Your task to perform on an android device: Show me recent news Image 0: 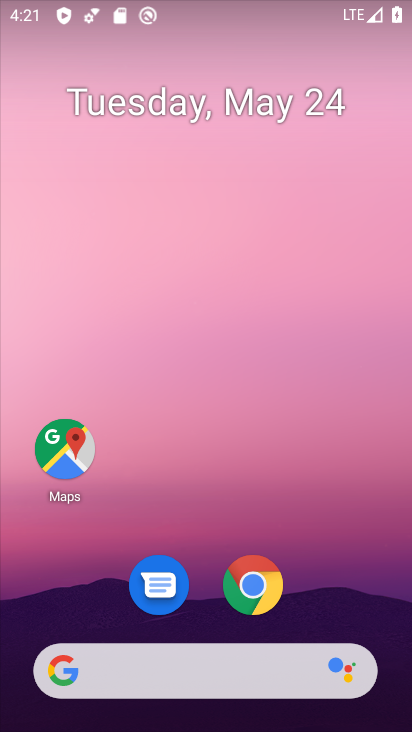
Step 0: click (226, 674)
Your task to perform on an android device: Show me recent news Image 1: 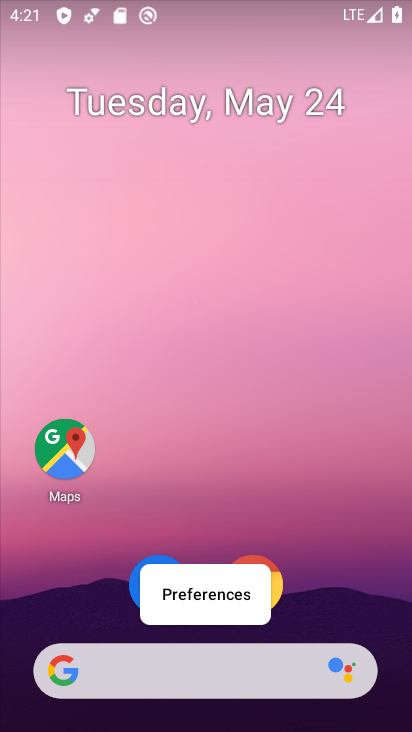
Step 1: click (210, 677)
Your task to perform on an android device: Show me recent news Image 2: 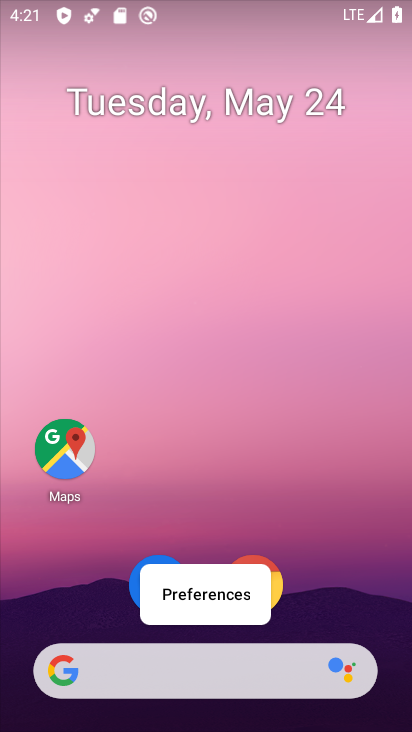
Step 2: click (169, 682)
Your task to perform on an android device: Show me recent news Image 3: 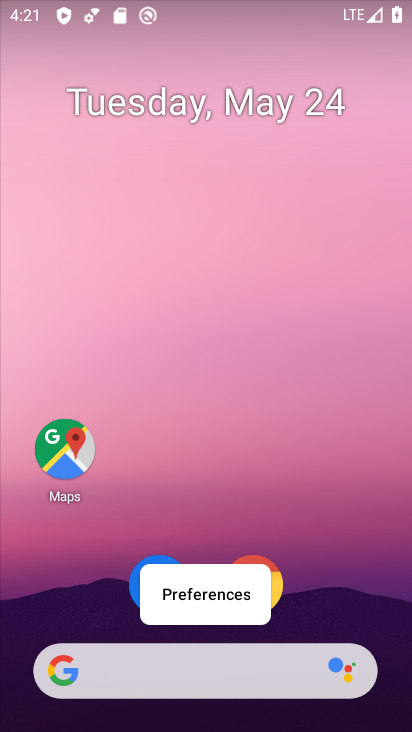
Step 3: click (142, 672)
Your task to perform on an android device: Show me recent news Image 4: 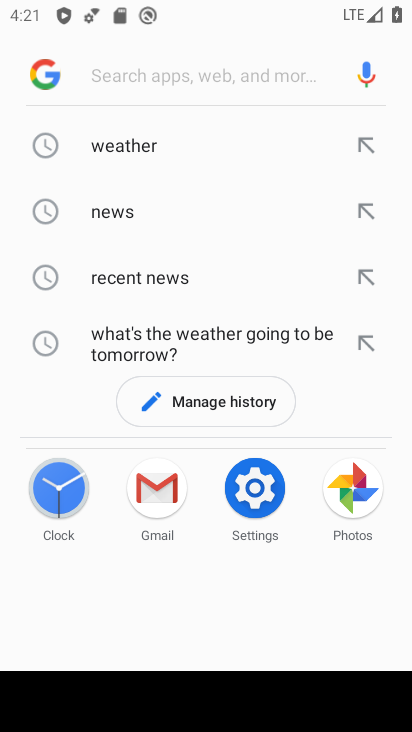
Step 4: click (89, 275)
Your task to perform on an android device: Show me recent news Image 5: 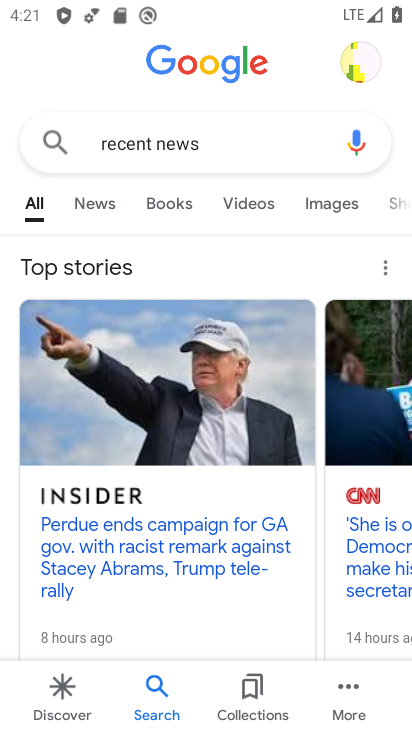
Step 5: click (123, 512)
Your task to perform on an android device: Show me recent news Image 6: 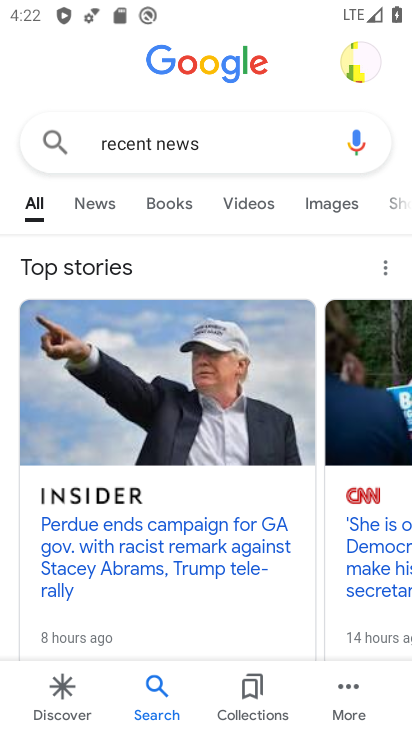
Step 6: task complete